Your task to perform on an android device: set an alarm Image 0: 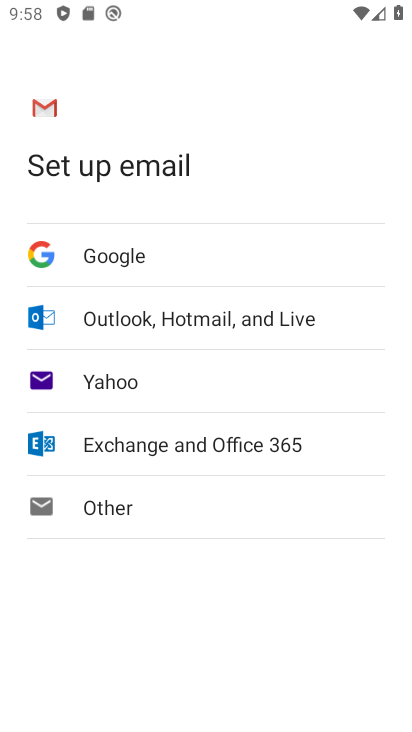
Step 0: press home button
Your task to perform on an android device: set an alarm Image 1: 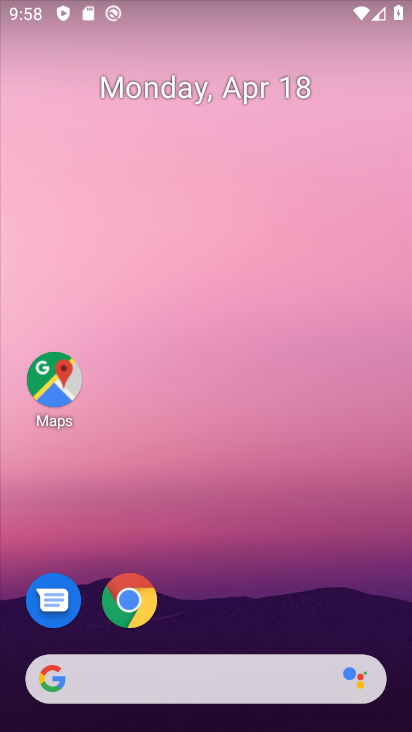
Step 1: drag from (213, 637) to (186, 61)
Your task to perform on an android device: set an alarm Image 2: 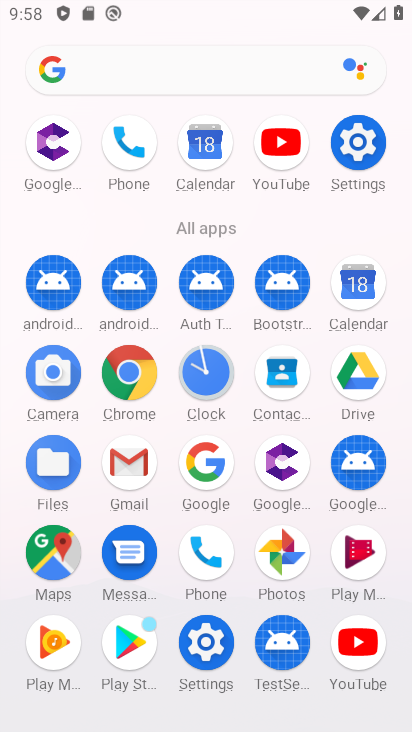
Step 2: click (197, 370)
Your task to perform on an android device: set an alarm Image 3: 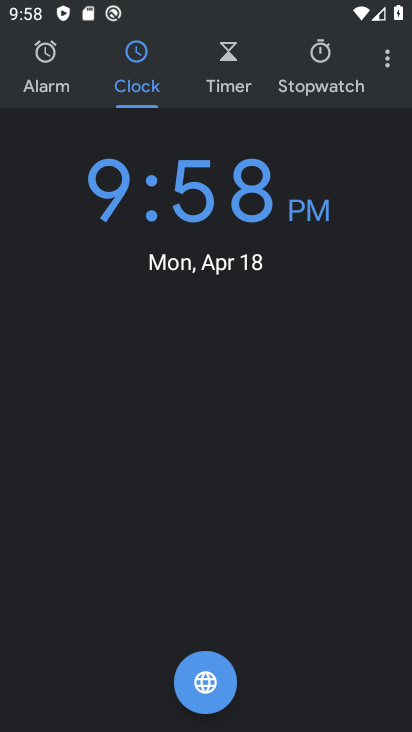
Step 3: click (47, 66)
Your task to perform on an android device: set an alarm Image 4: 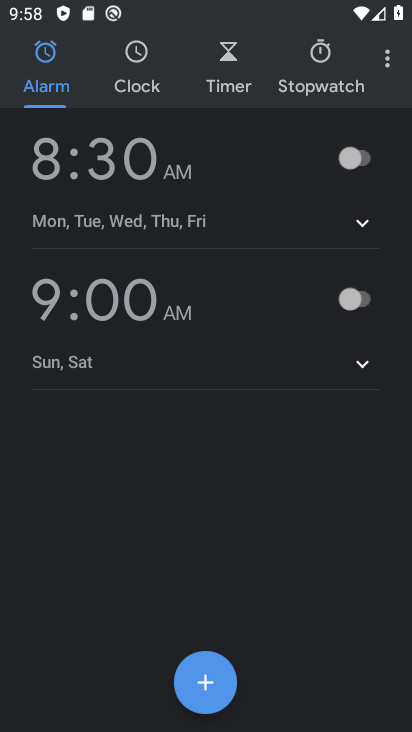
Step 4: click (213, 681)
Your task to perform on an android device: set an alarm Image 5: 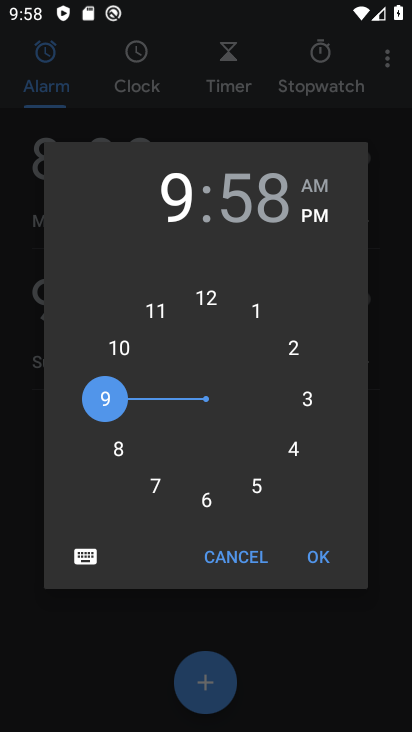
Step 5: click (310, 554)
Your task to perform on an android device: set an alarm Image 6: 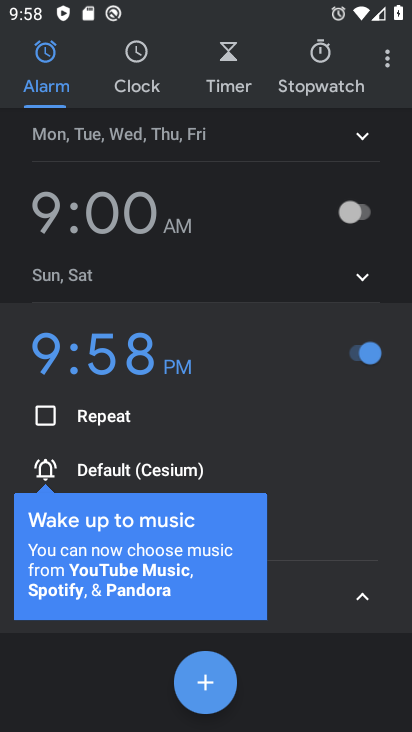
Step 6: task complete